Your task to perform on an android device: View the shopping cart on target.com. Search for "dell xps" on target.com, select the first entry, add it to the cart, then select checkout. Image 0: 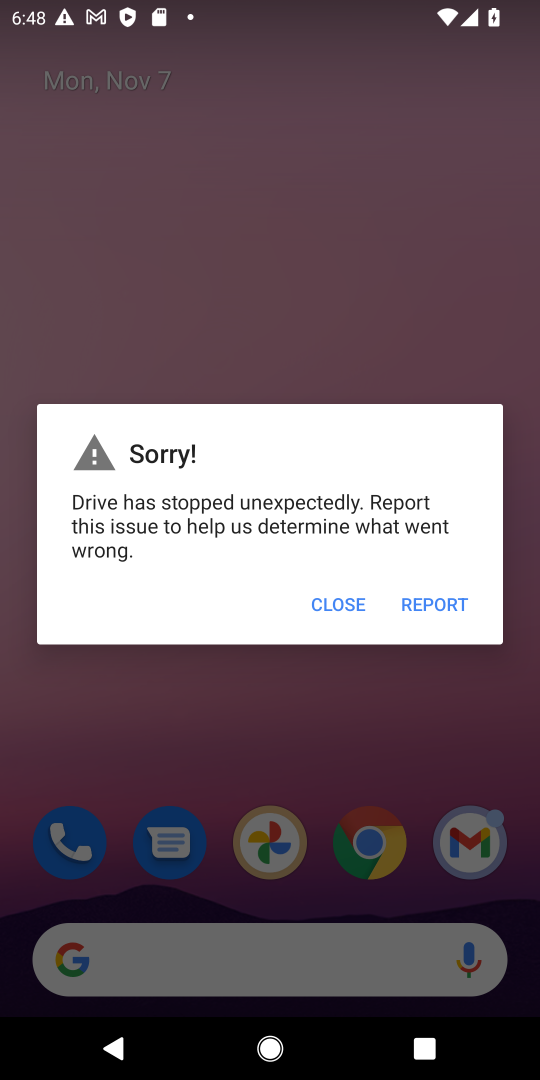
Step 0: click (326, 608)
Your task to perform on an android device: View the shopping cart on target.com. Search for "dell xps" on target.com, select the first entry, add it to the cart, then select checkout. Image 1: 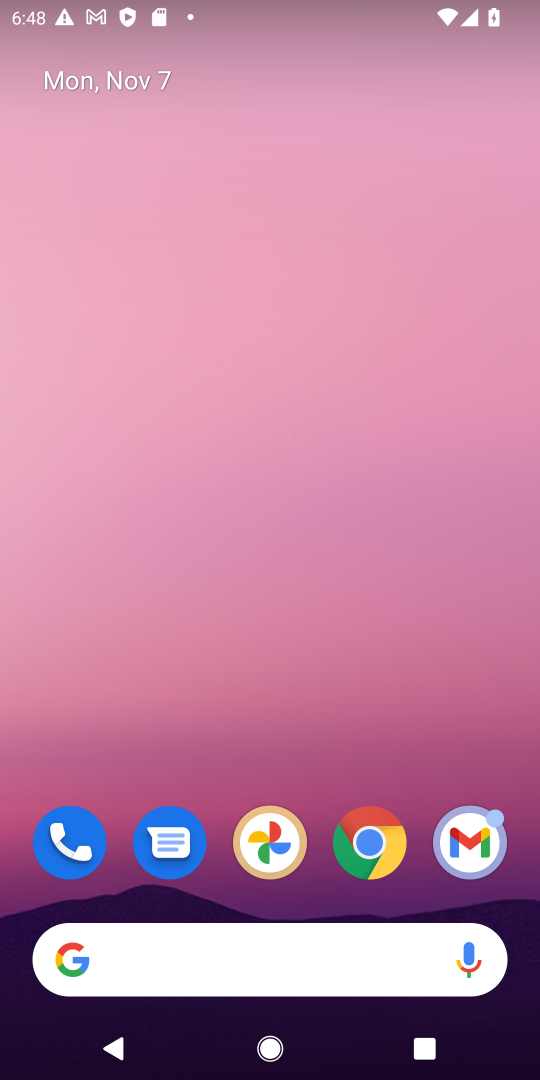
Step 1: drag from (252, 910) to (198, 80)
Your task to perform on an android device: View the shopping cart on target.com. Search for "dell xps" on target.com, select the first entry, add it to the cart, then select checkout. Image 2: 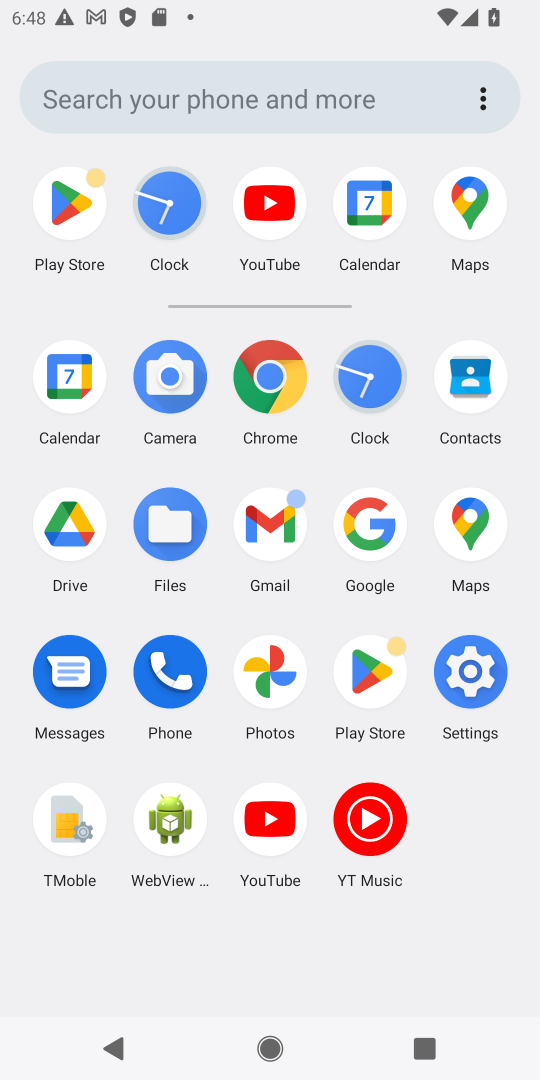
Step 2: click (250, 357)
Your task to perform on an android device: View the shopping cart on target.com. Search for "dell xps" on target.com, select the first entry, add it to the cart, then select checkout. Image 3: 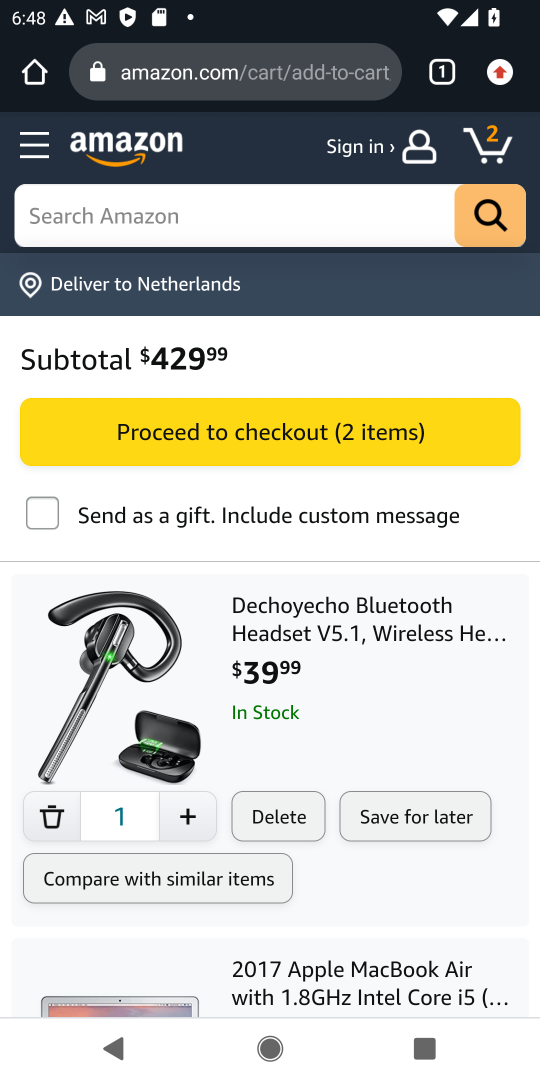
Step 3: click (186, 77)
Your task to perform on an android device: View the shopping cart on target.com. Search for "dell xps" on target.com, select the first entry, add it to the cart, then select checkout. Image 4: 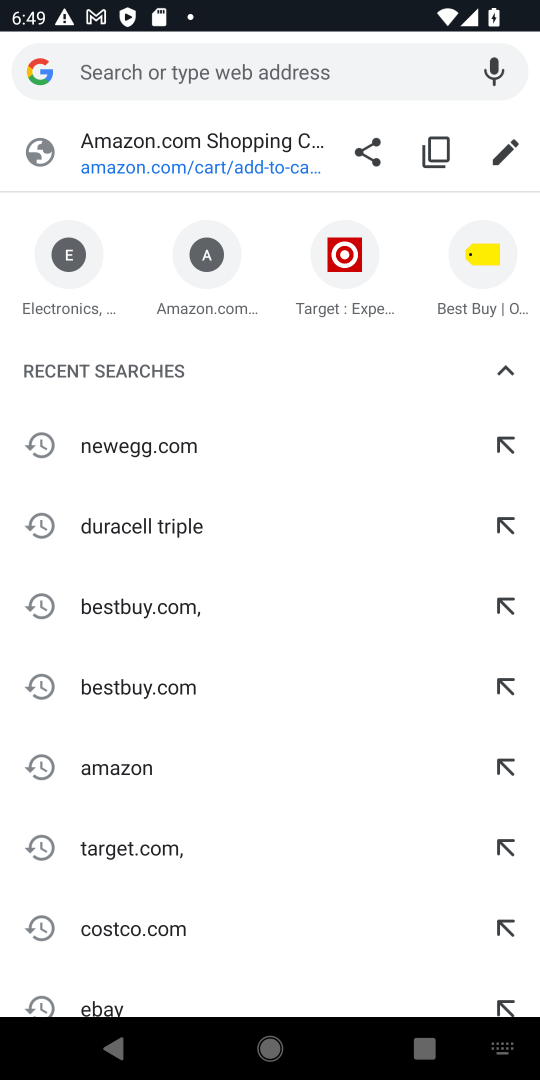
Step 4: type "target.com"
Your task to perform on an android device: View the shopping cart on target.com. Search for "dell xps" on target.com, select the first entry, add it to the cart, then select checkout. Image 5: 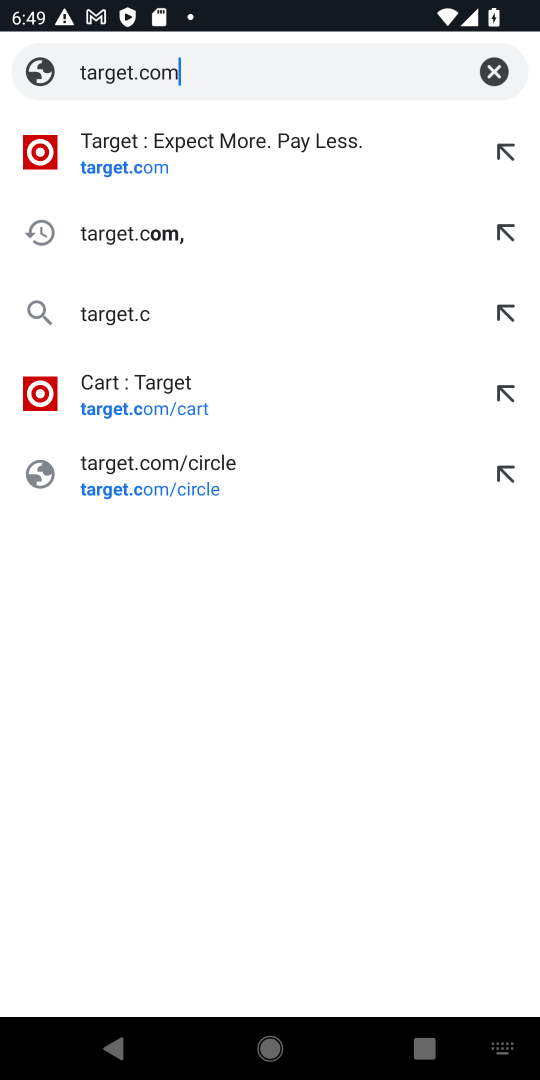
Step 5: press enter
Your task to perform on an android device: View the shopping cart on target.com. Search for "dell xps" on target.com, select the first entry, add it to the cart, then select checkout. Image 6: 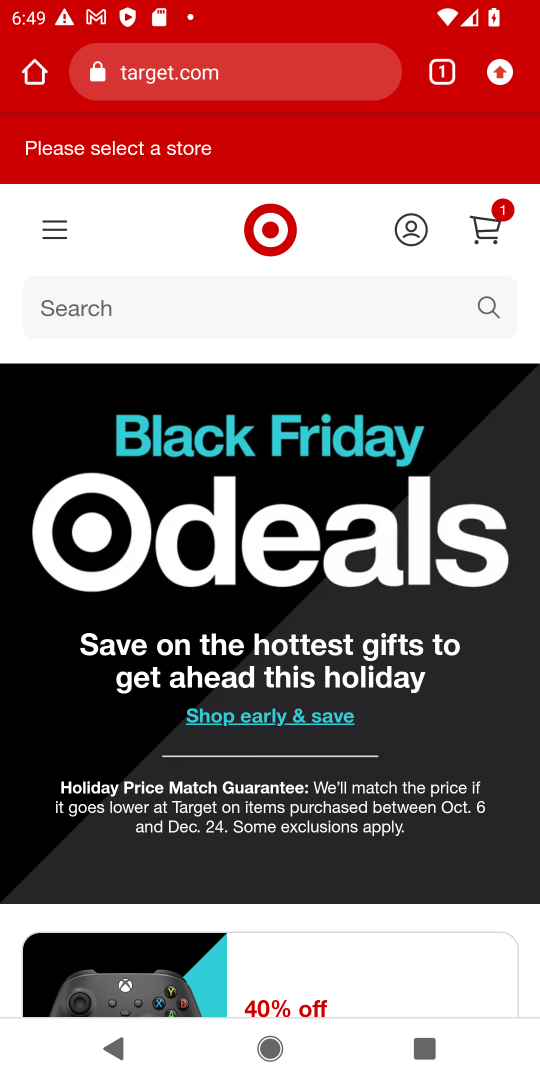
Step 6: click (486, 222)
Your task to perform on an android device: View the shopping cart on target.com. Search for "dell xps" on target.com, select the first entry, add it to the cart, then select checkout. Image 7: 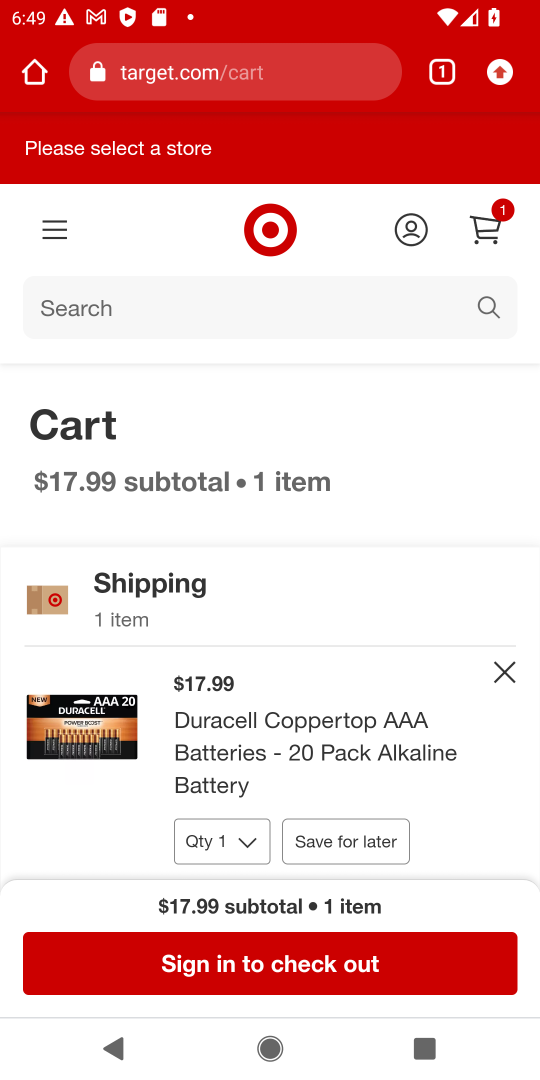
Step 7: click (381, 309)
Your task to perform on an android device: View the shopping cart on target.com. Search for "dell xps" on target.com, select the first entry, add it to the cart, then select checkout. Image 8: 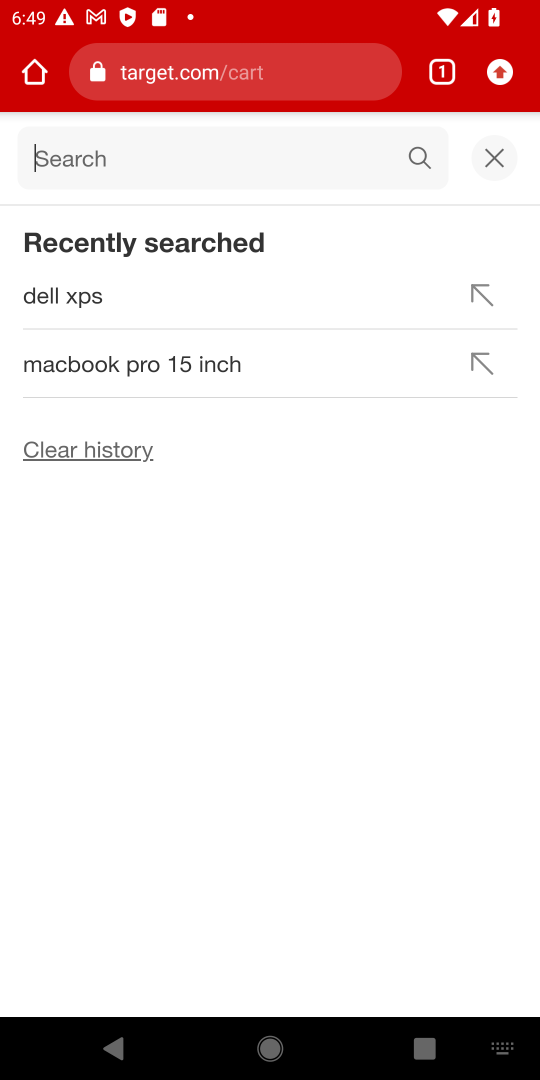
Step 8: type "dell xps"
Your task to perform on an android device: View the shopping cart on target.com. Search for "dell xps" on target.com, select the first entry, add it to the cart, then select checkout. Image 9: 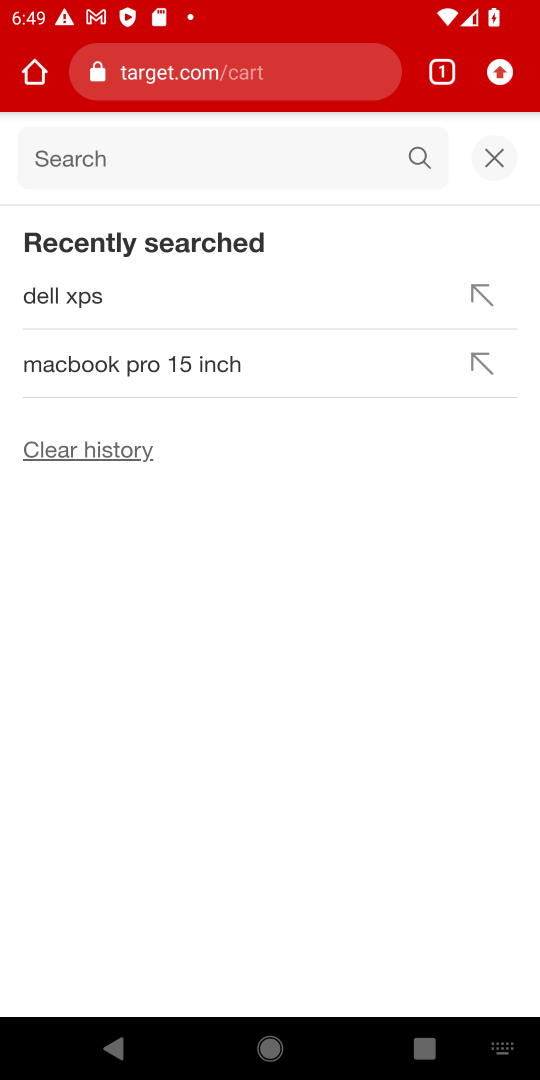
Step 9: press enter
Your task to perform on an android device: View the shopping cart on target.com. Search for "dell xps" on target.com, select the first entry, add it to the cart, then select checkout. Image 10: 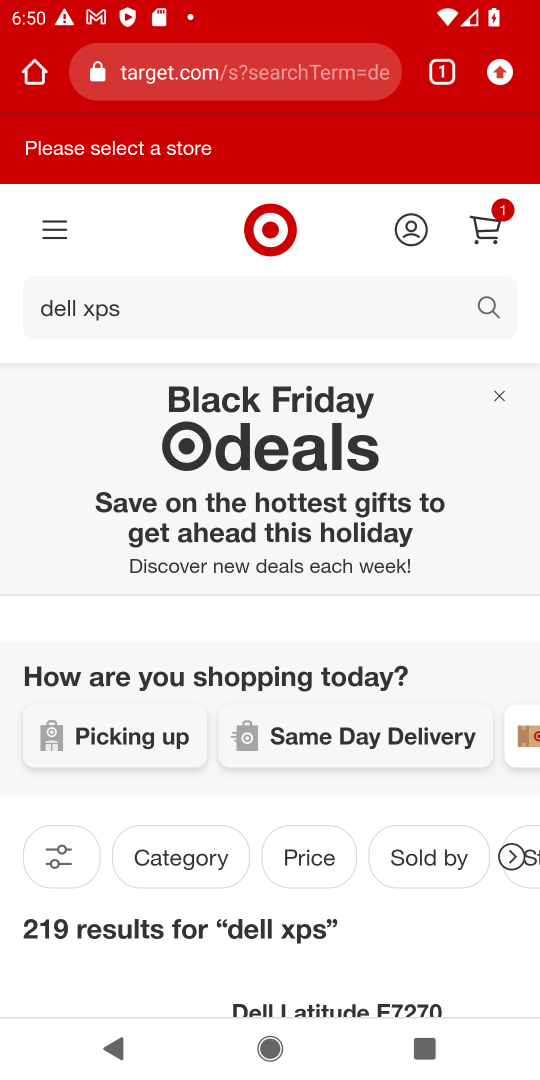
Step 10: drag from (221, 749) to (107, 333)
Your task to perform on an android device: View the shopping cart on target.com. Search for "dell xps" on target.com, select the first entry, add it to the cart, then select checkout. Image 11: 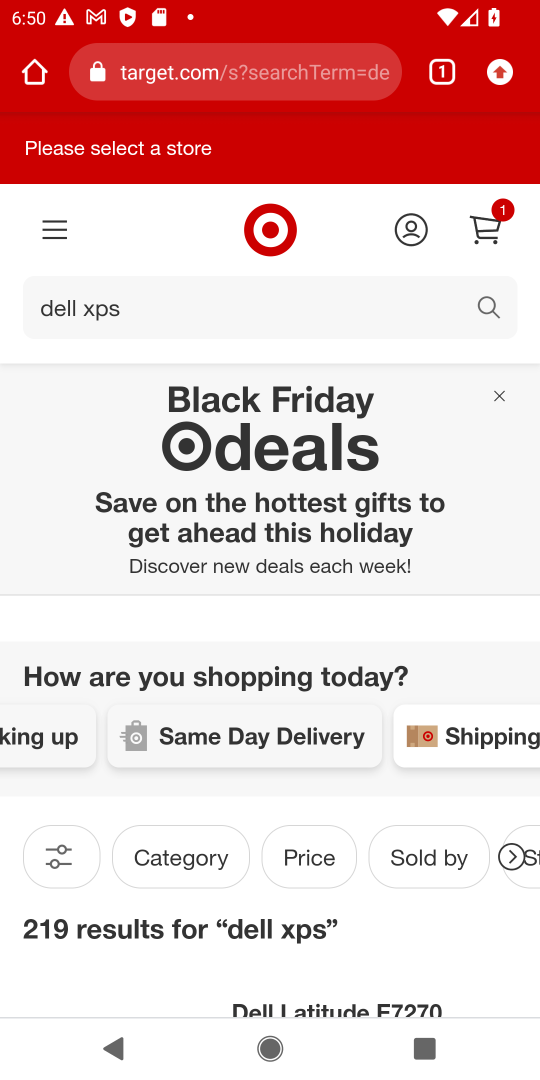
Step 11: drag from (360, 764) to (455, 437)
Your task to perform on an android device: View the shopping cart on target.com. Search for "dell xps" on target.com, select the first entry, add it to the cart, then select checkout. Image 12: 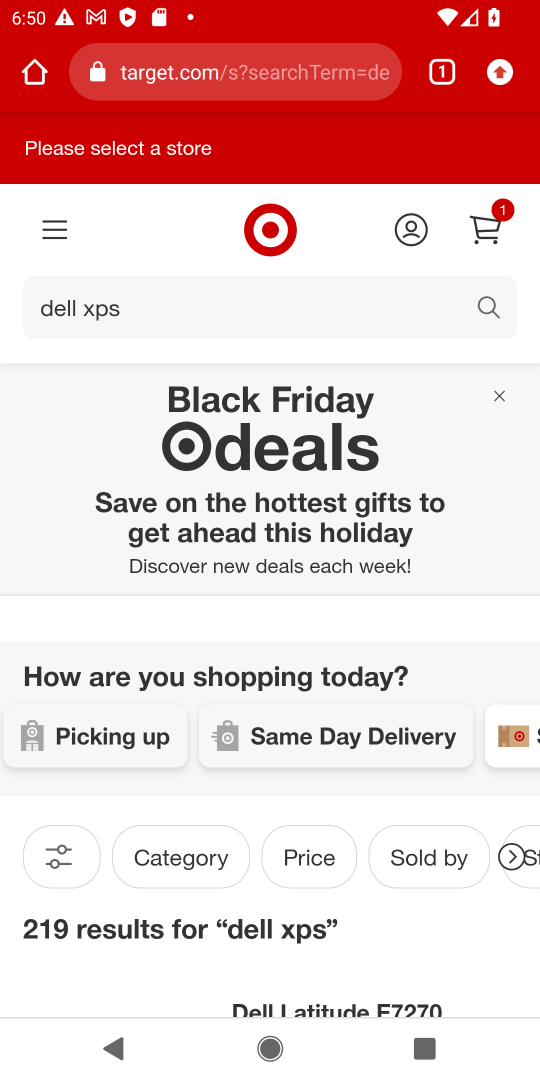
Step 12: drag from (187, 912) to (175, 429)
Your task to perform on an android device: View the shopping cart on target.com. Search for "dell xps" on target.com, select the first entry, add it to the cart, then select checkout. Image 13: 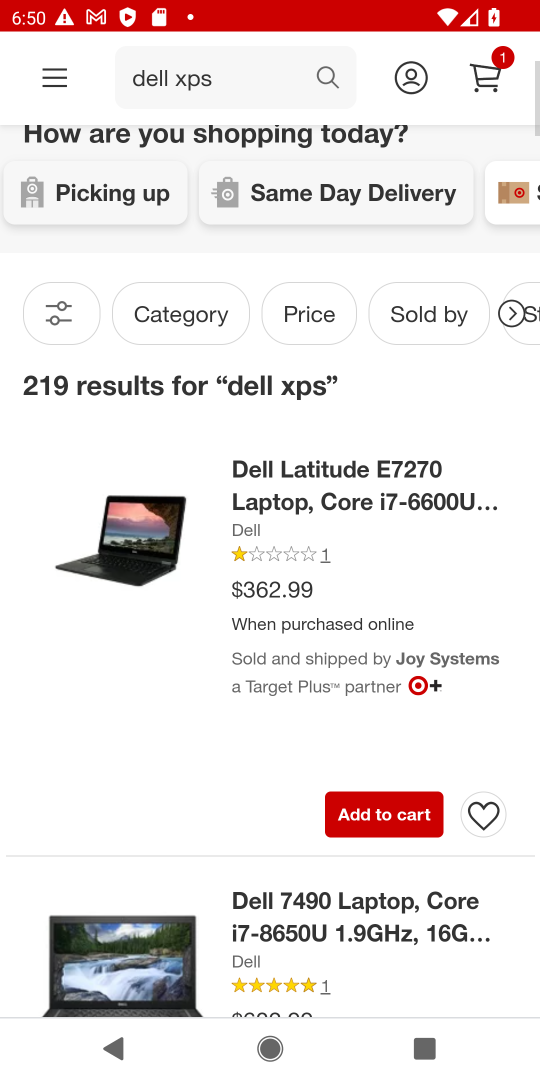
Step 13: drag from (142, 565) to (149, 390)
Your task to perform on an android device: View the shopping cart on target.com. Search for "dell xps" on target.com, select the first entry, add it to the cart, then select checkout. Image 14: 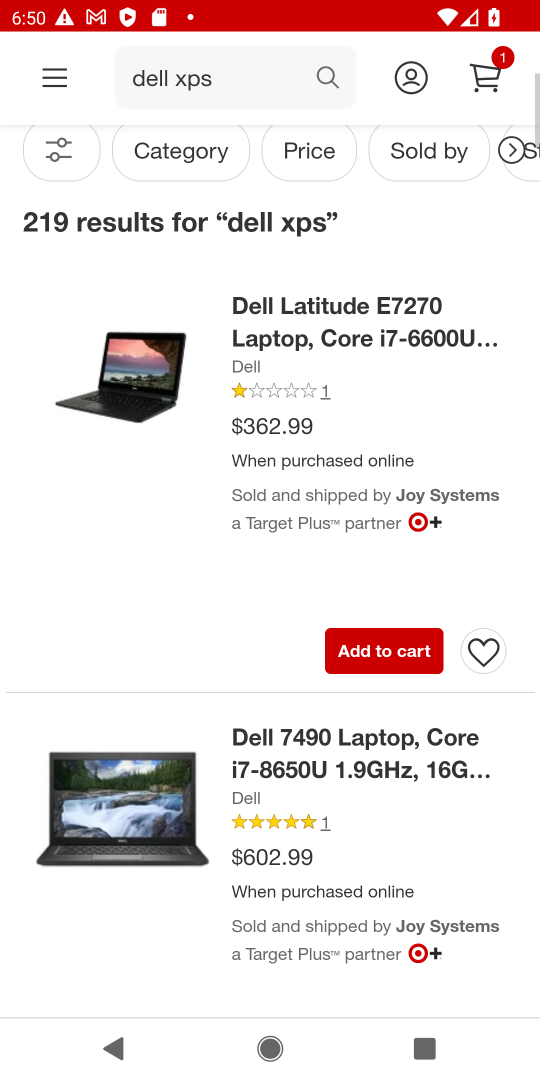
Step 14: click (261, 458)
Your task to perform on an android device: View the shopping cart on target.com. Search for "dell xps" on target.com, select the first entry, add it to the cart, then select checkout. Image 15: 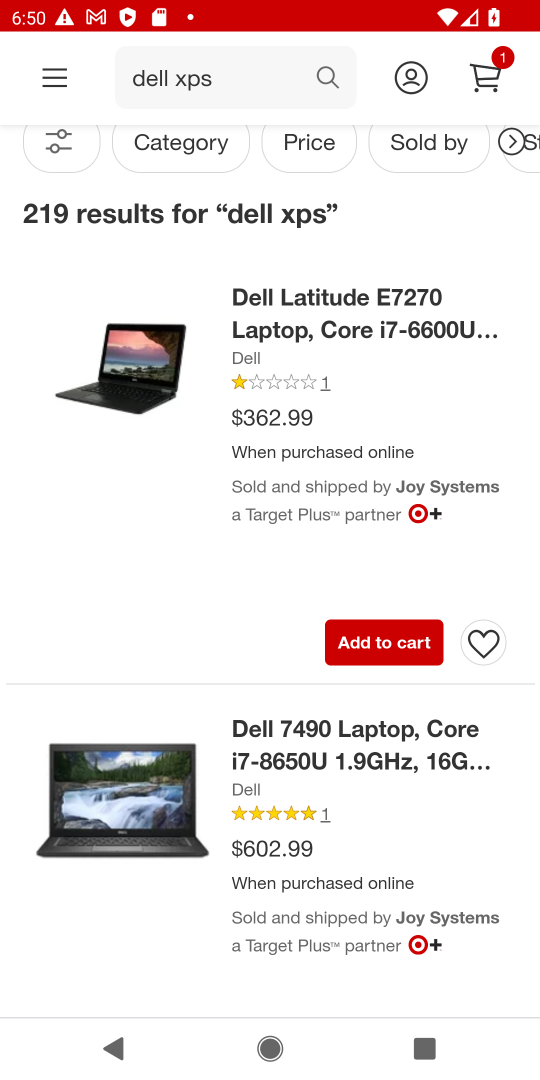
Step 15: click (399, 650)
Your task to perform on an android device: View the shopping cart on target.com. Search for "dell xps" on target.com, select the first entry, add it to the cart, then select checkout. Image 16: 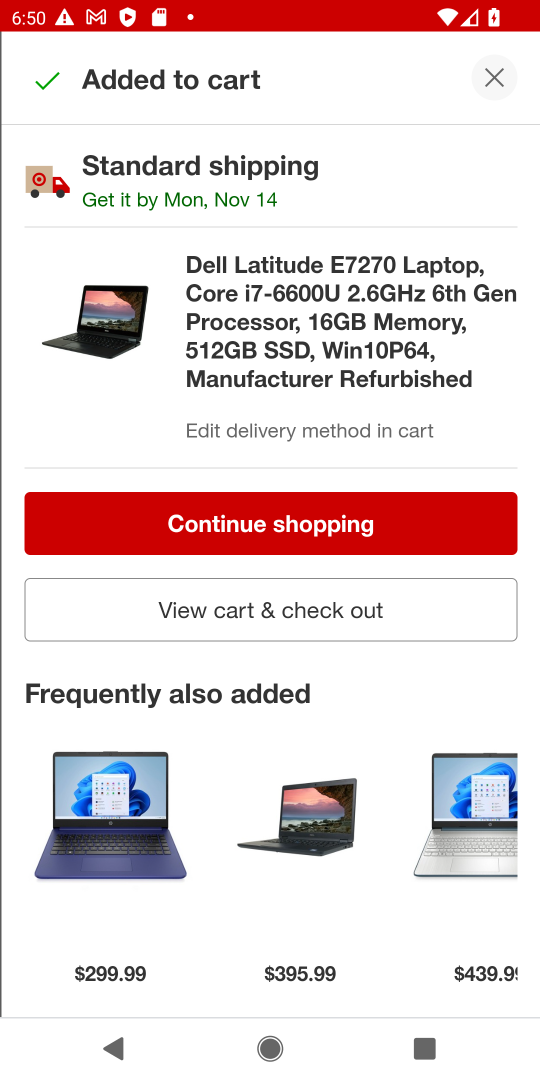
Step 16: click (234, 614)
Your task to perform on an android device: View the shopping cart on target.com. Search for "dell xps" on target.com, select the first entry, add it to the cart, then select checkout. Image 17: 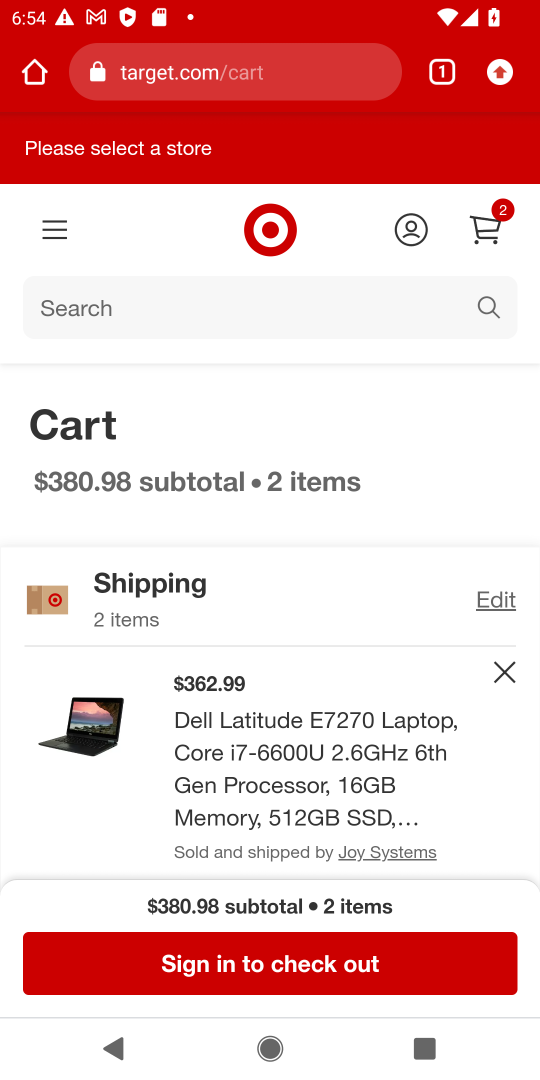
Step 17: task complete